Your task to perform on an android device: find which apps use the phone's location Image 0: 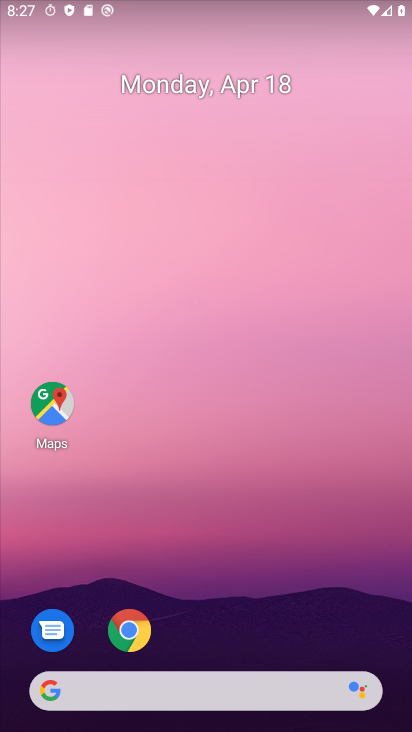
Step 0: drag from (226, 595) to (340, 151)
Your task to perform on an android device: find which apps use the phone's location Image 1: 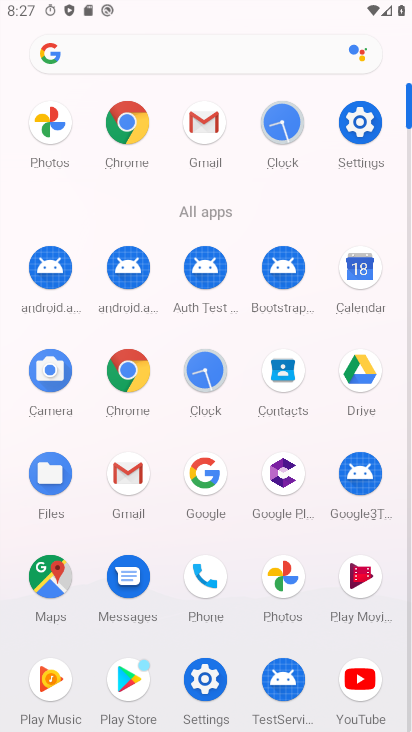
Step 1: click (359, 135)
Your task to perform on an android device: find which apps use the phone's location Image 2: 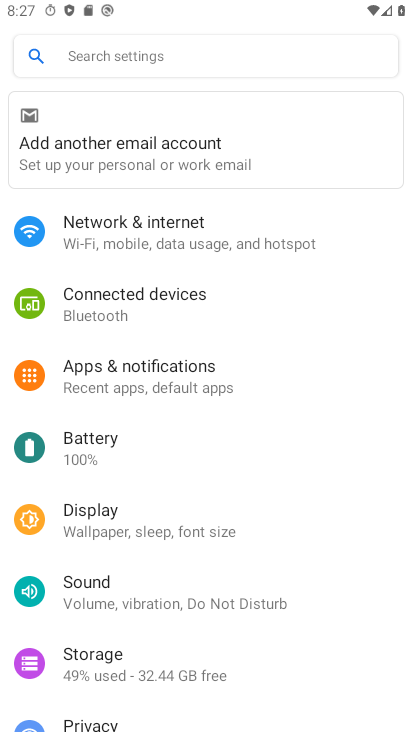
Step 2: drag from (115, 651) to (205, 273)
Your task to perform on an android device: find which apps use the phone's location Image 3: 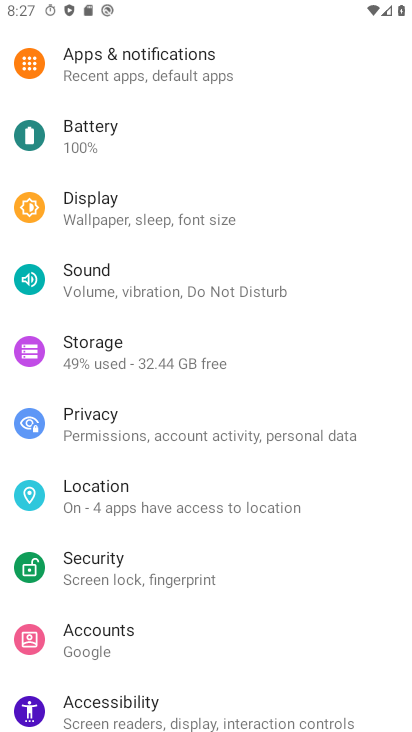
Step 3: click (120, 489)
Your task to perform on an android device: find which apps use the phone's location Image 4: 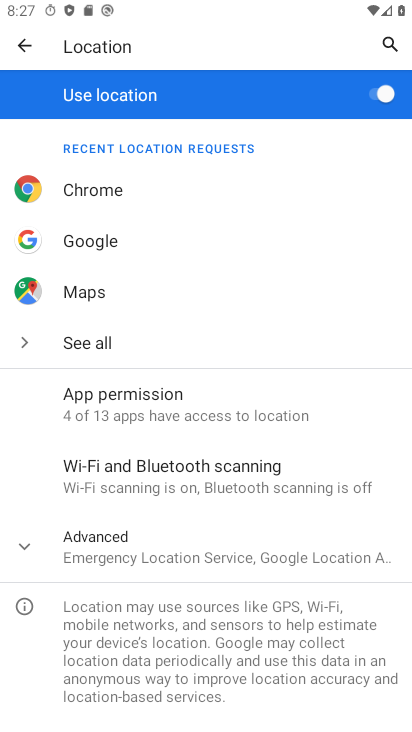
Step 4: click (115, 394)
Your task to perform on an android device: find which apps use the phone's location Image 5: 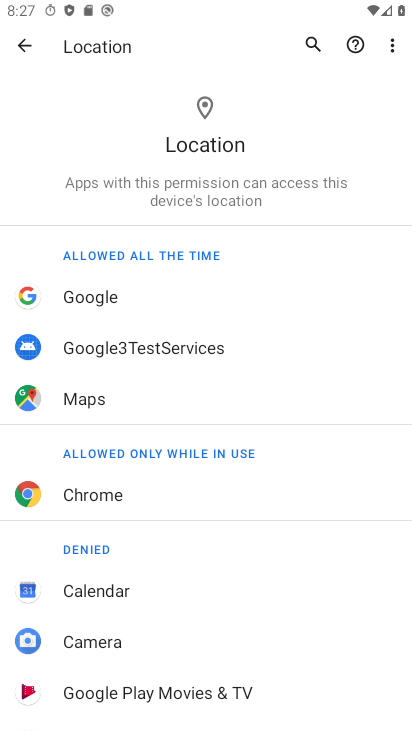
Step 5: task complete